Your task to perform on an android device: stop showing notifications on the lock screen Image 0: 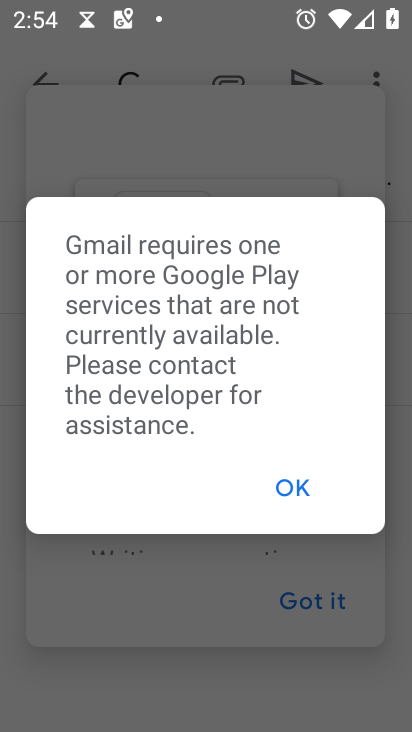
Step 0: press home button
Your task to perform on an android device: stop showing notifications on the lock screen Image 1: 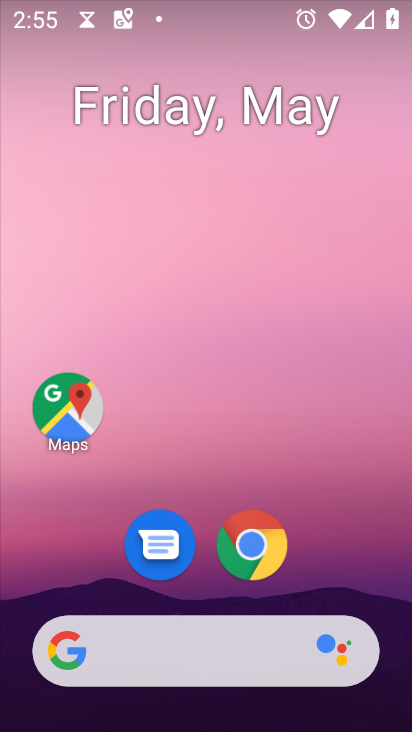
Step 1: drag from (334, 558) to (301, 202)
Your task to perform on an android device: stop showing notifications on the lock screen Image 2: 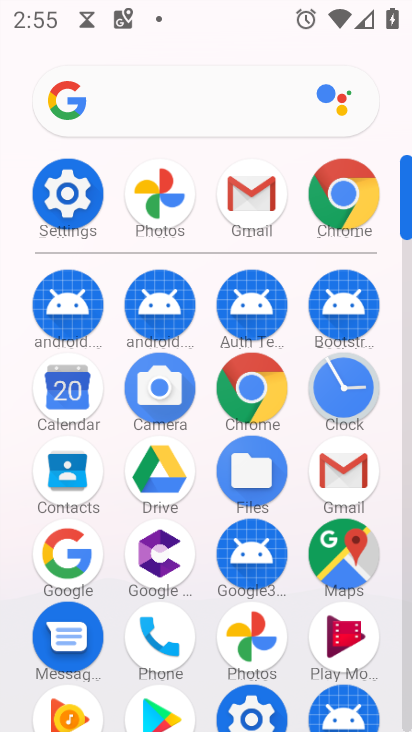
Step 2: click (50, 189)
Your task to perform on an android device: stop showing notifications on the lock screen Image 3: 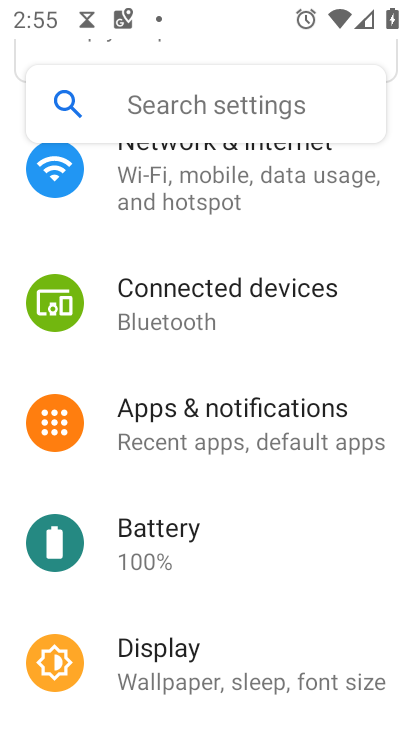
Step 3: click (272, 426)
Your task to perform on an android device: stop showing notifications on the lock screen Image 4: 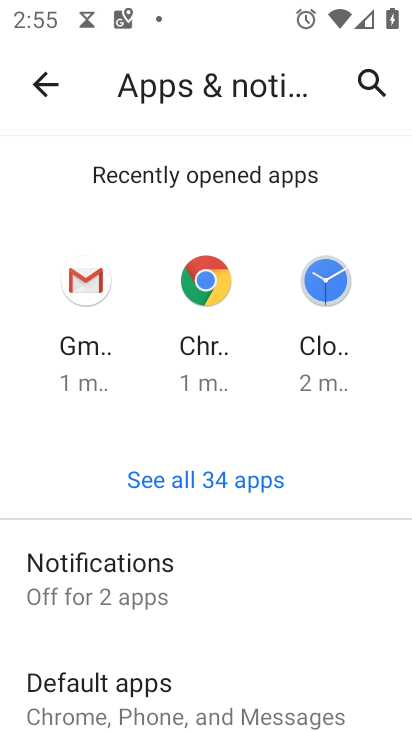
Step 4: click (199, 559)
Your task to perform on an android device: stop showing notifications on the lock screen Image 5: 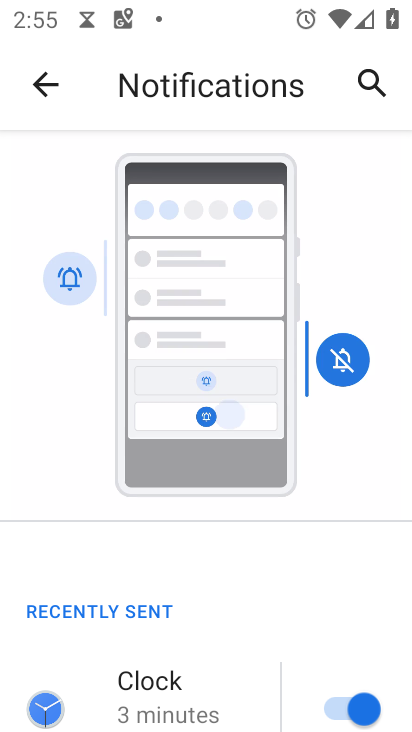
Step 5: drag from (254, 643) to (209, 323)
Your task to perform on an android device: stop showing notifications on the lock screen Image 6: 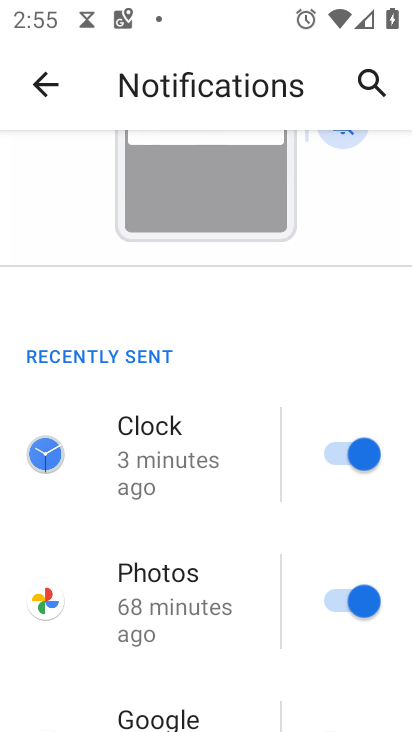
Step 6: drag from (252, 679) to (196, 315)
Your task to perform on an android device: stop showing notifications on the lock screen Image 7: 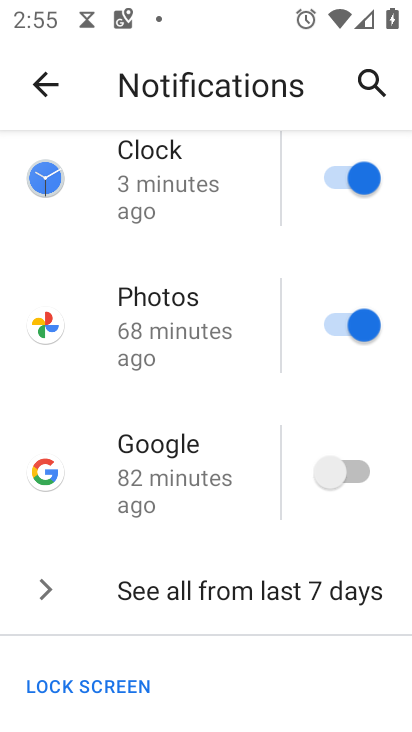
Step 7: drag from (251, 674) to (211, 212)
Your task to perform on an android device: stop showing notifications on the lock screen Image 8: 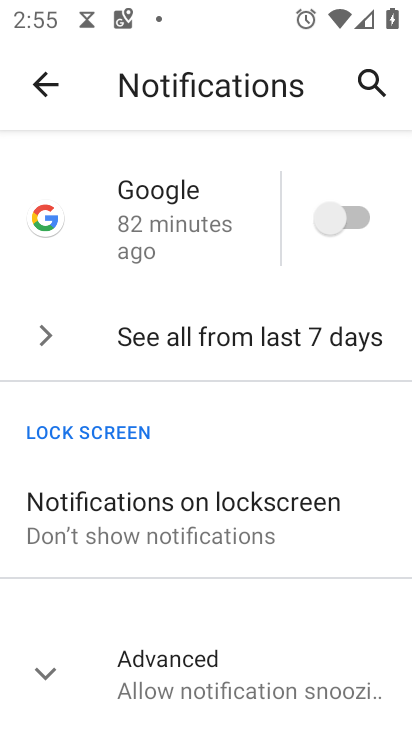
Step 8: click (238, 517)
Your task to perform on an android device: stop showing notifications on the lock screen Image 9: 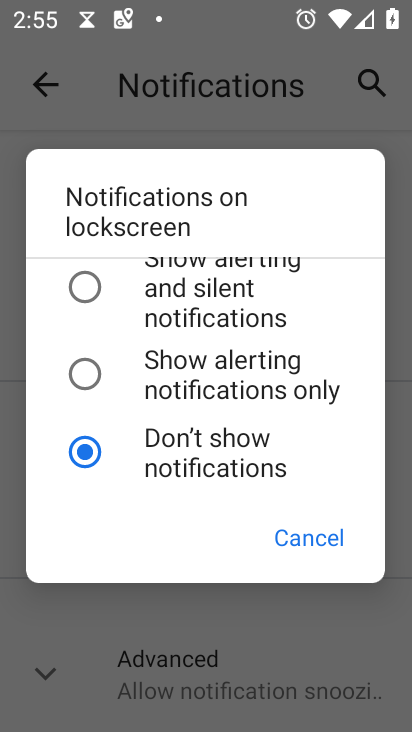
Step 9: click (174, 472)
Your task to perform on an android device: stop showing notifications on the lock screen Image 10: 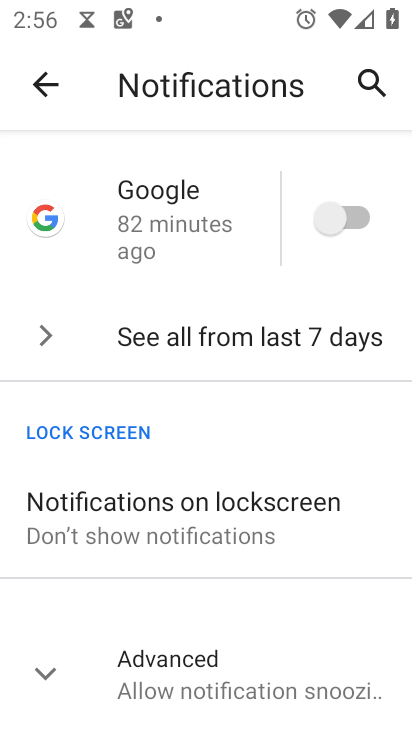
Step 10: task complete